Your task to perform on an android device: all mails in gmail Image 0: 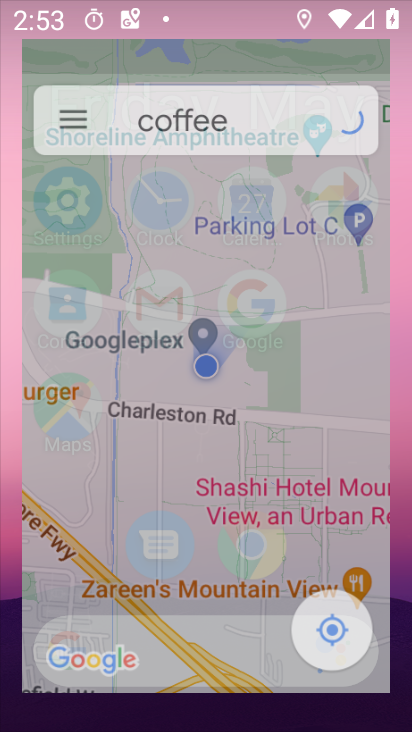
Step 0: press home button
Your task to perform on an android device: all mails in gmail Image 1: 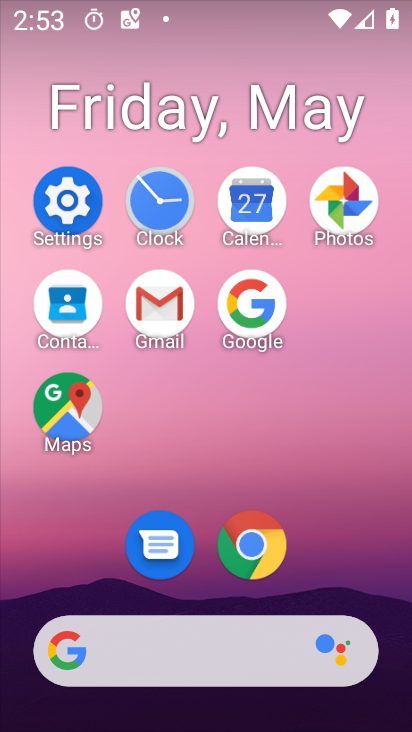
Step 1: click (158, 308)
Your task to perform on an android device: all mails in gmail Image 2: 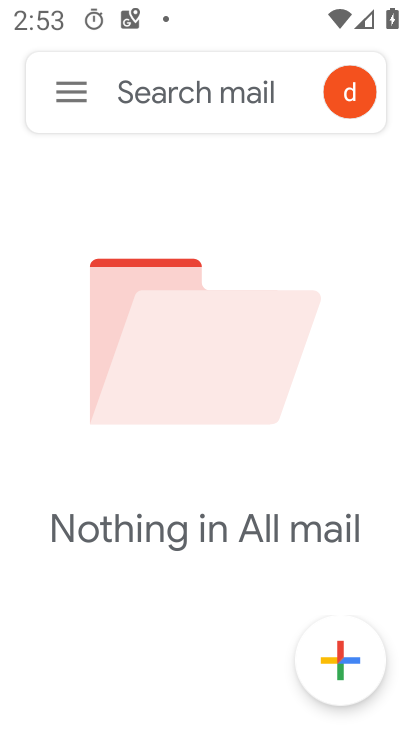
Step 2: click (64, 115)
Your task to perform on an android device: all mails in gmail Image 3: 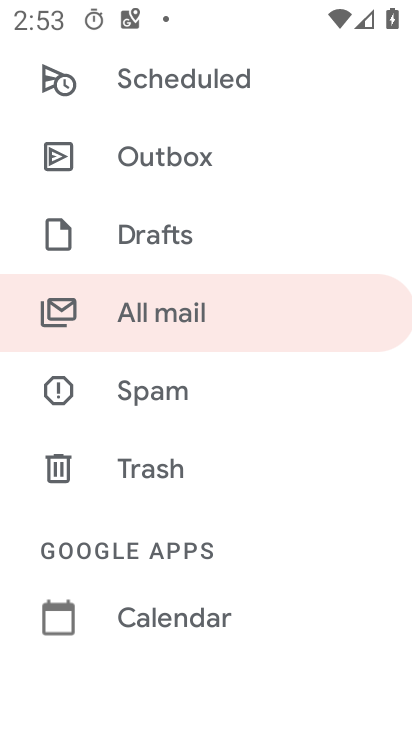
Step 3: click (172, 318)
Your task to perform on an android device: all mails in gmail Image 4: 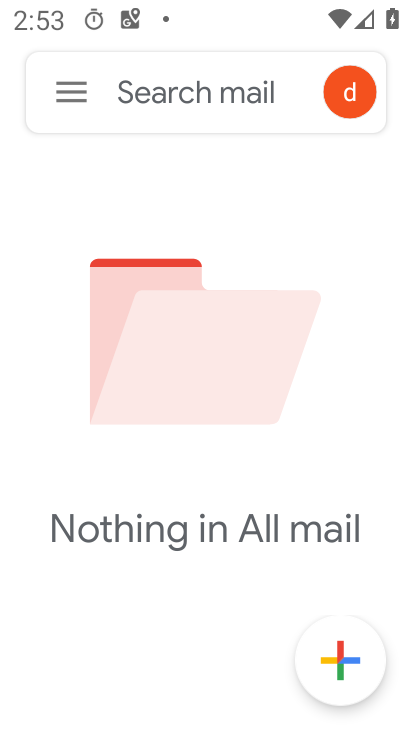
Step 4: task complete